Your task to perform on an android device: Open Yahoo.com Image 0: 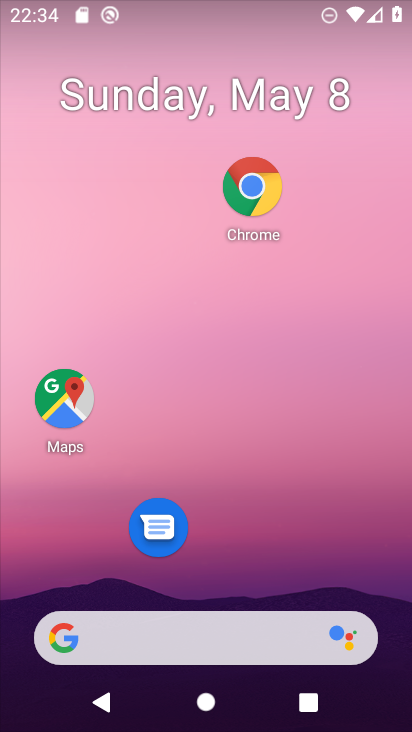
Step 0: drag from (288, 544) to (275, 309)
Your task to perform on an android device: Open Yahoo.com Image 1: 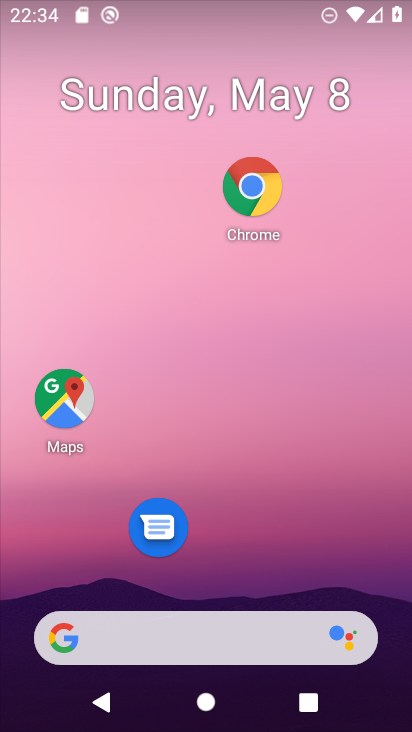
Step 1: drag from (288, 567) to (294, 256)
Your task to perform on an android device: Open Yahoo.com Image 2: 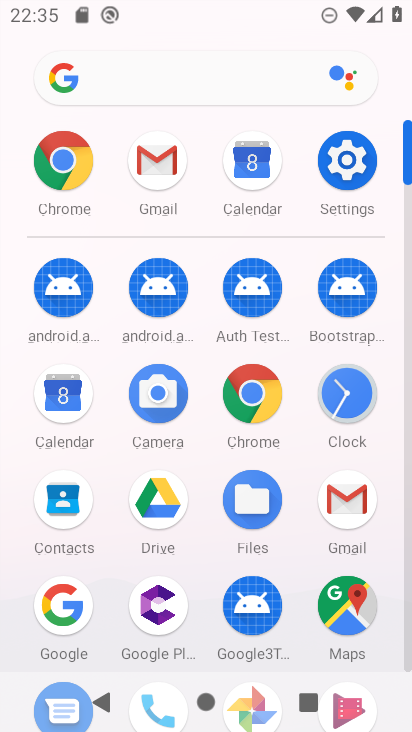
Step 2: click (249, 386)
Your task to perform on an android device: Open Yahoo.com Image 3: 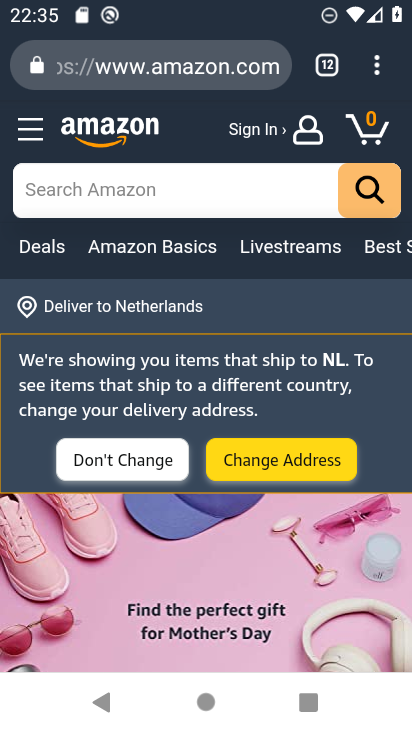
Step 3: click (364, 63)
Your task to perform on an android device: Open Yahoo.com Image 4: 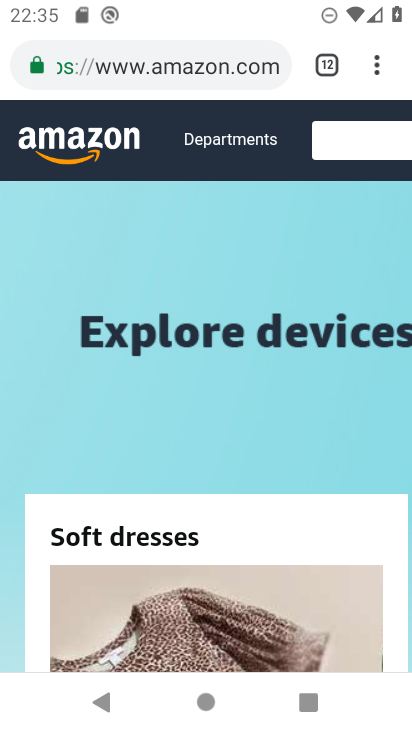
Step 4: click (356, 63)
Your task to perform on an android device: Open Yahoo.com Image 5: 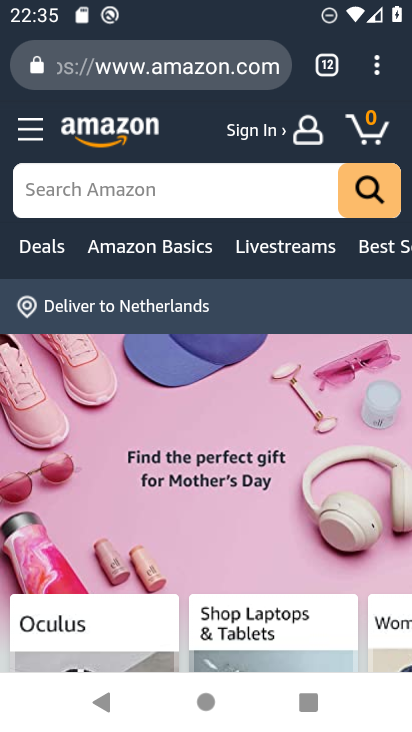
Step 5: click (357, 51)
Your task to perform on an android device: Open Yahoo.com Image 6: 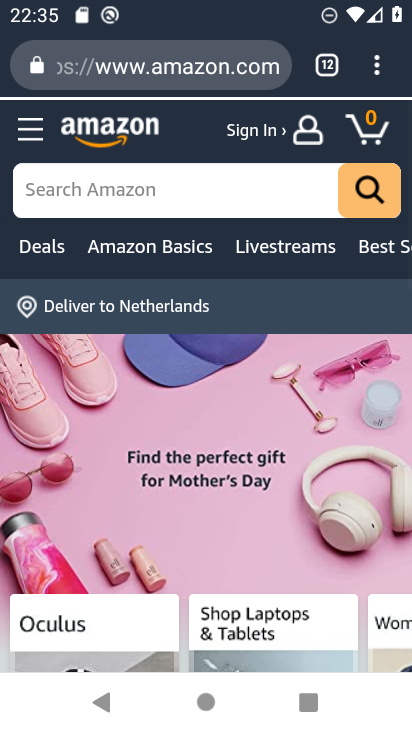
Step 6: click (356, 68)
Your task to perform on an android device: Open Yahoo.com Image 7: 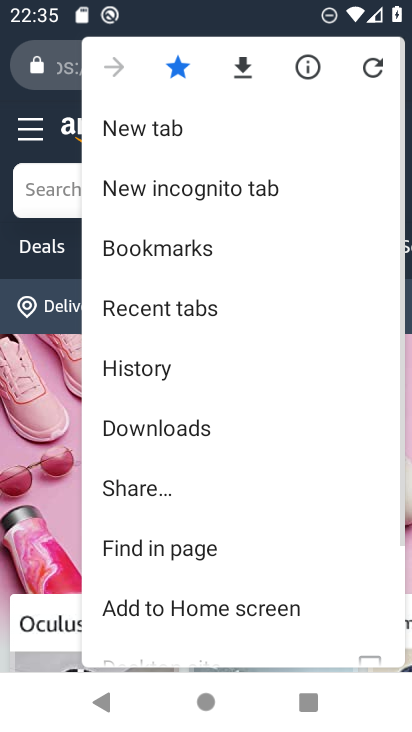
Step 7: click (160, 120)
Your task to perform on an android device: Open Yahoo.com Image 8: 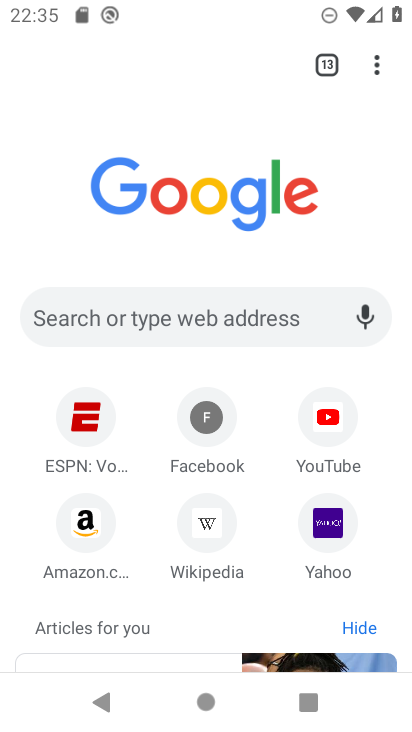
Step 8: click (318, 525)
Your task to perform on an android device: Open Yahoo.com Image 9: 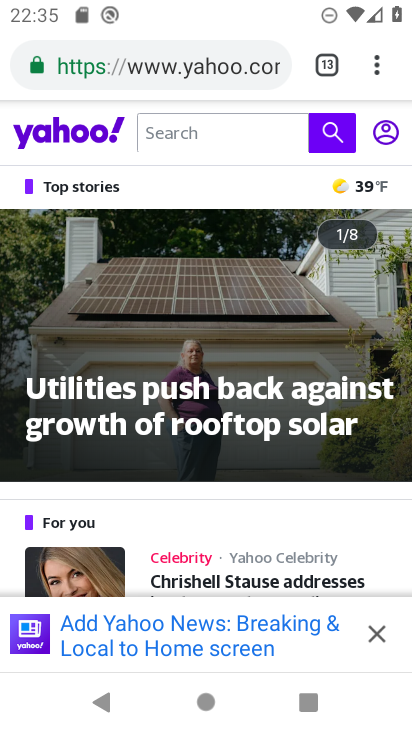
Step 9: task complete